Your task to perform on an android device: add a contact in the contacts app Image 0: 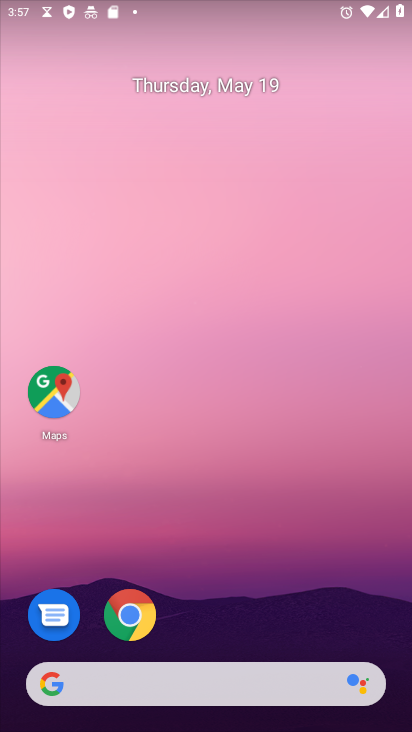
Step 0: drag from (365, 719) to (208, 45)
Your task to perform on an android device: add a contact in the contacts app Image 1: 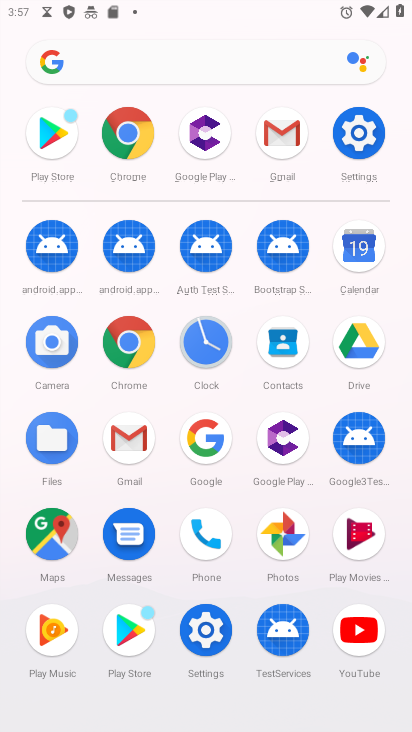
Step 1: click (293, 340)
Your task to perform on an android device: add a contact in the contacts app Image 2: 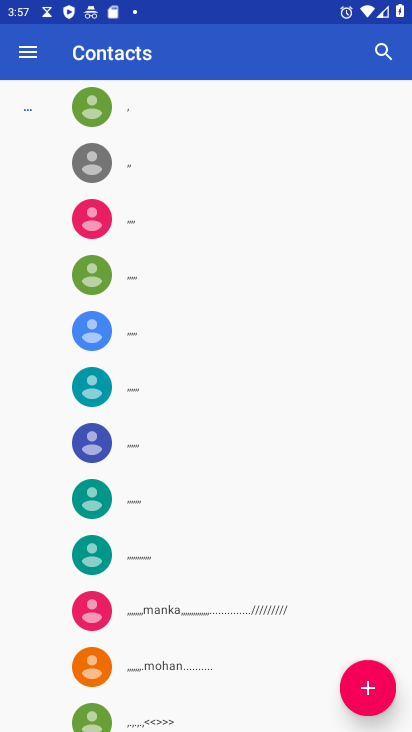
Step 2: drag from (239, 633) to (251, 183)
Your task to perform on an android device: add a contact in the contacts app Image 3: 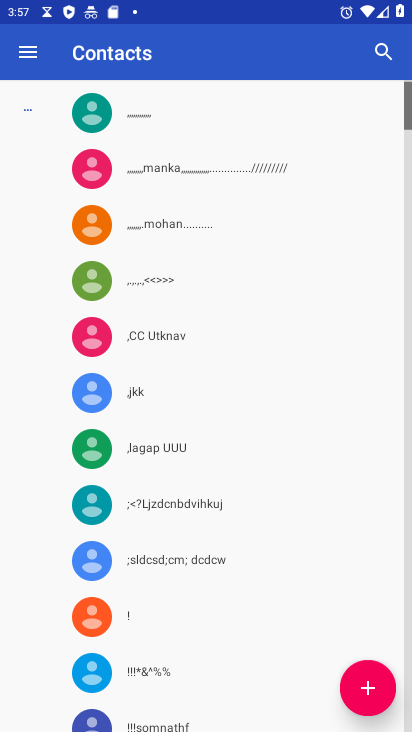
Step 3: drag from (212, 393) to (177, 73)
Your task to perform on an android device: add a contact in the contacts app Image 4: 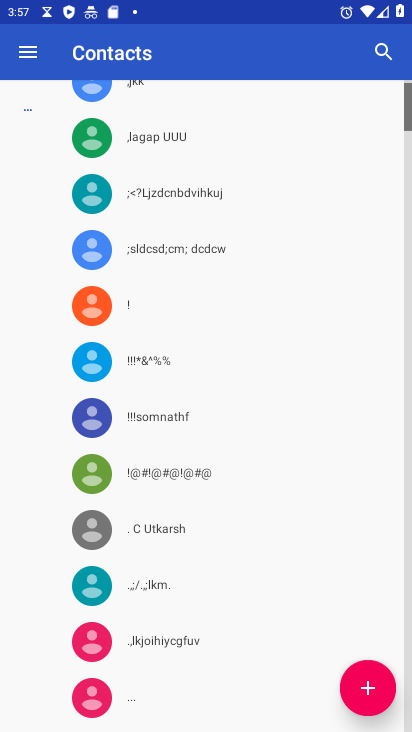
Step 4: drag from (291, 441) to (260, 127)
Your task to perform on an android device: add a contact in the contacts app Image 5: 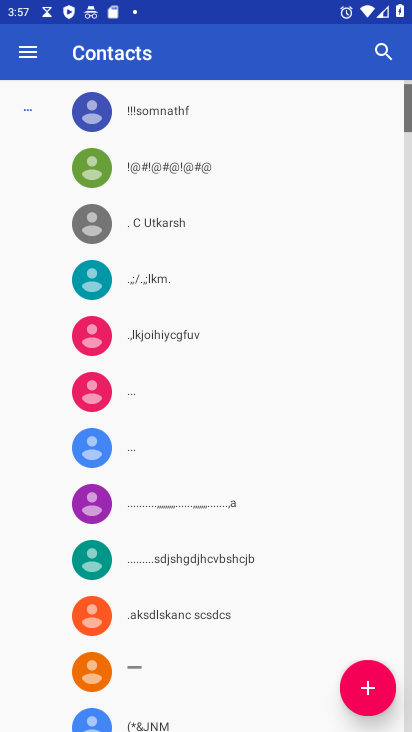
Step 5: drag from (361, 465) to (259, 125)
Your task to perform on an android device: add a contact in the contacts app Image 6: 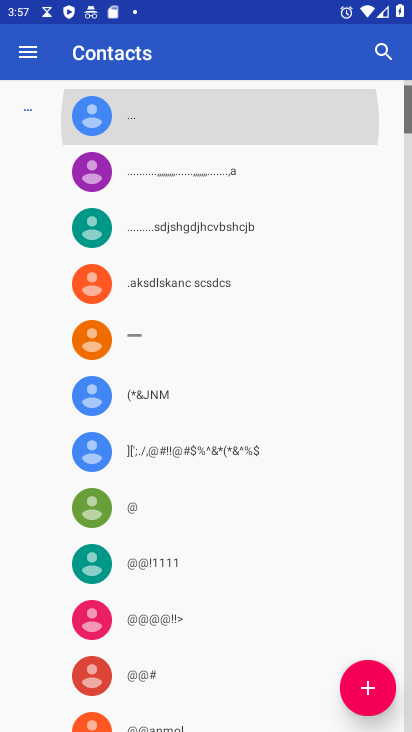
Step 6: drag from (315, 559) to (264, 133)
Your task to perform on an android device: add a contact in the contacts app Image 7: 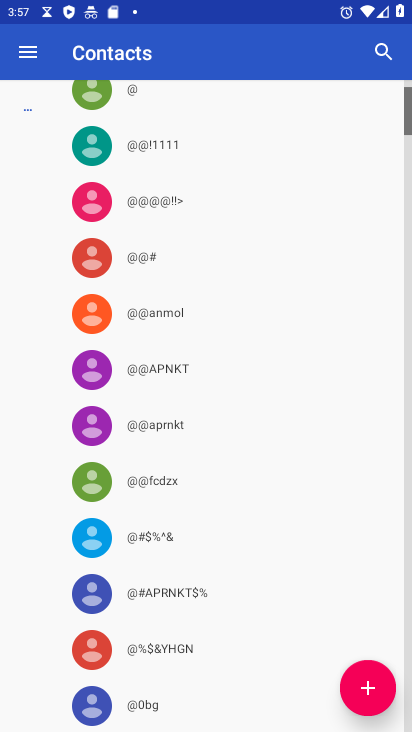
Step 7: drag from (303, 537) to (205, 190)
Your task to perform on an android device: add a contact in the contacts app Image 8: 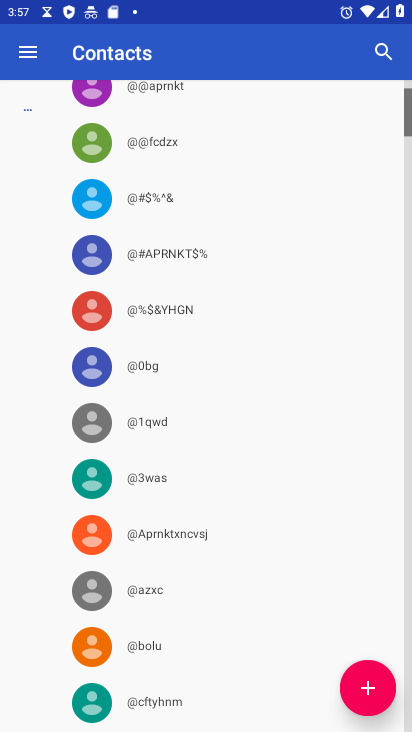
Step 8: drag from (310, 457) to (321, 175)
Your task to perform on an android device: add a contact in the contacts app Image 9: 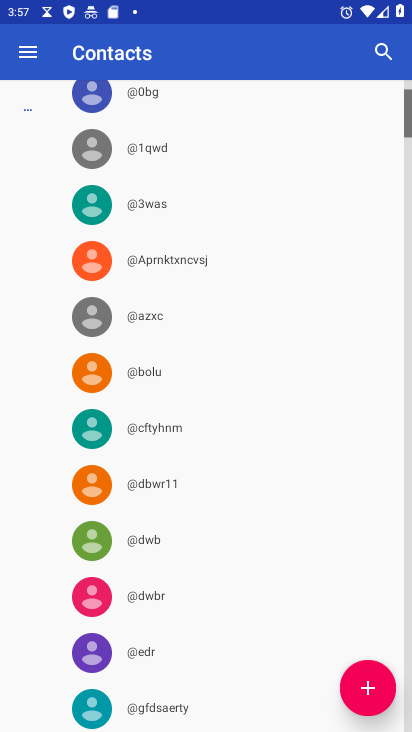
Step 9: drag from (356, 550) to (288, 220)
Your task to perform on an android device: add a contact in the contacts app Image 10: 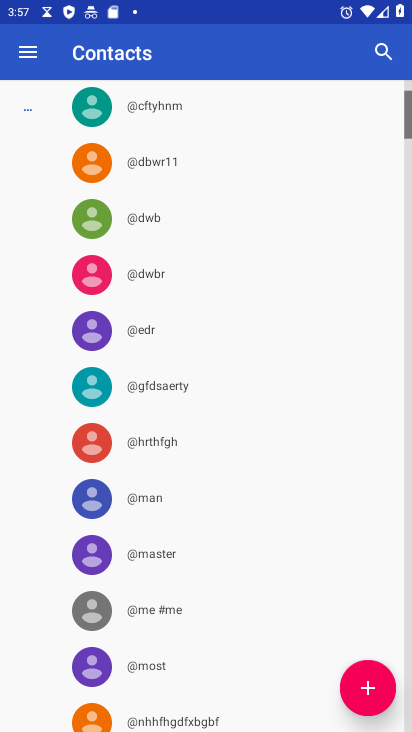
Step 10: click (360, 674)
Your task to perform on an android device: add a contact in the contacts app Image 11: 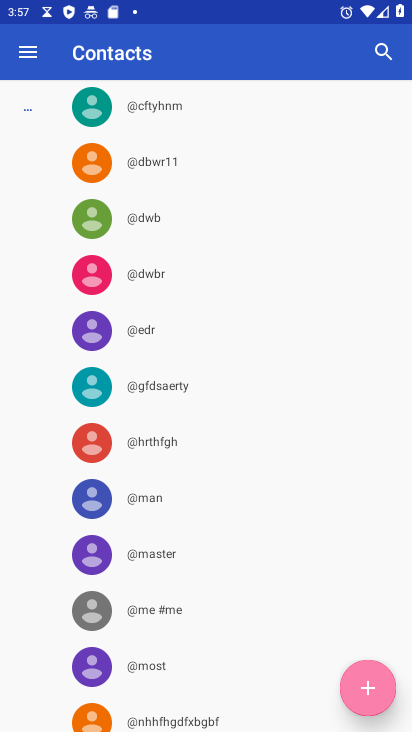
Step 11: click (371, 682)
Your task to perform on an android device: add a contact in the contacts app Image 12: 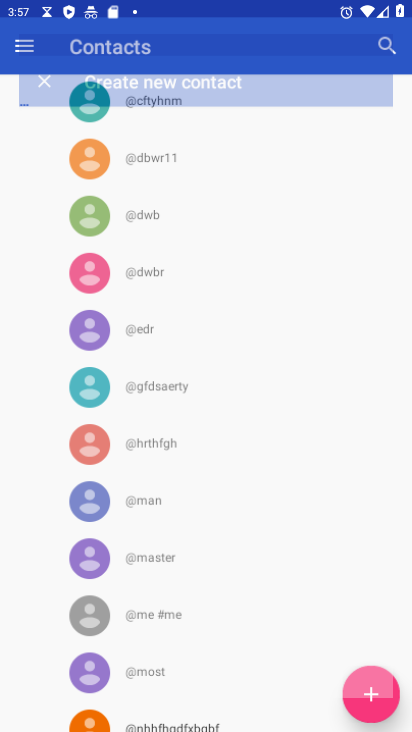
Step 12: click (371, 682)
Your task to perform on an android device: add a contact in the contacts app Image 13: 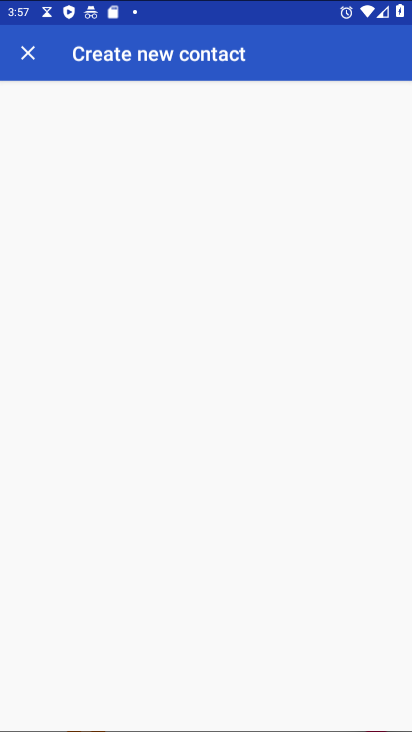
Step 13: click (371, 682)
Your task to perform on an android device: add a contact in the contacts app Image 14: 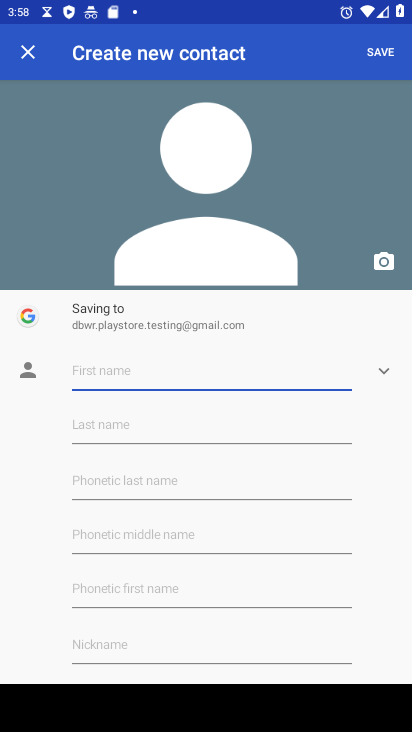
Step 14: type "fdhfgjhgjhghu"
Your task to perform on an android device: add a contact in the contacts app Image 15: 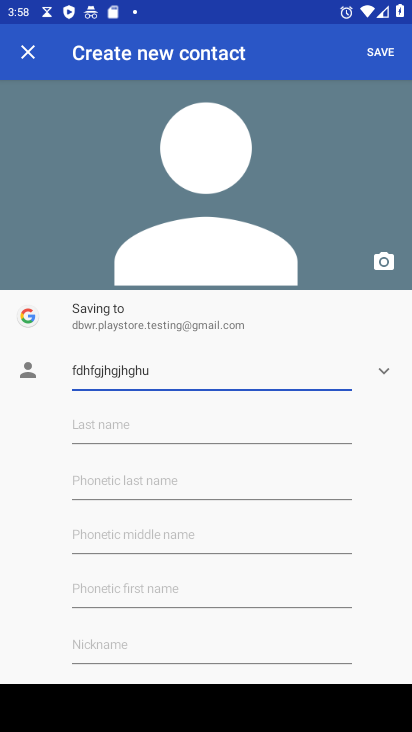
Step 15: click (91, 480)
Your task to perform on an android device: add a contact in the contacts app Image 16: 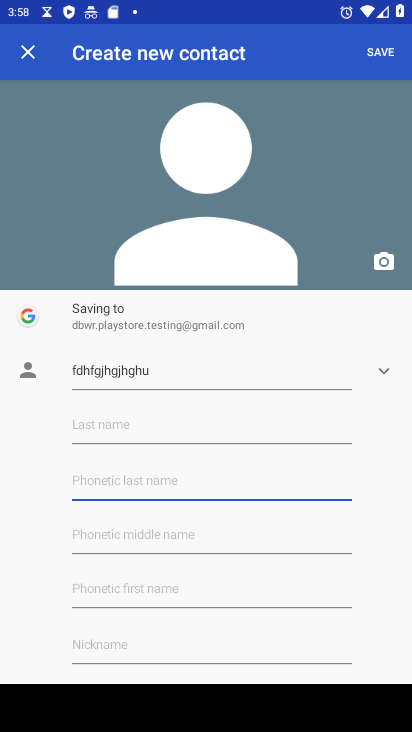
Step 16: click (91, 480)
Your task to perform on an android device: add a contact in the contacts app Image 17: 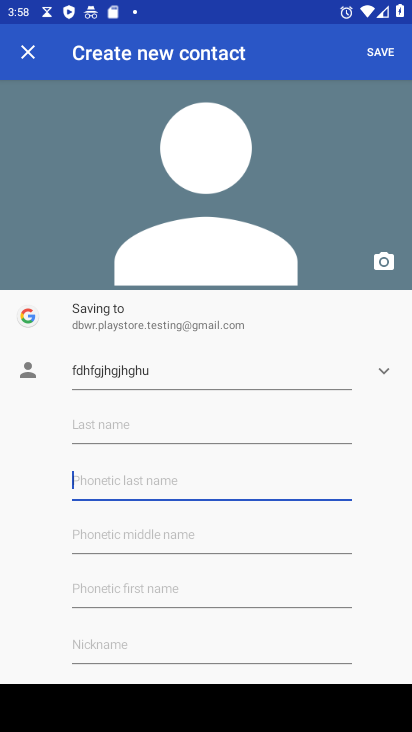
Step 17: type "6576786879"
Your task to perform on an android device: add a contact in the contacts app Image 18: 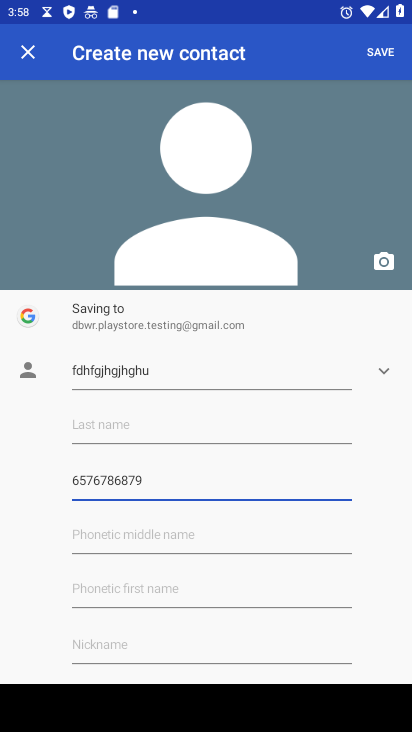
Step 18: click (397, 46)
Your task to perform on an android device: add a contact in the contacts app Image 19: 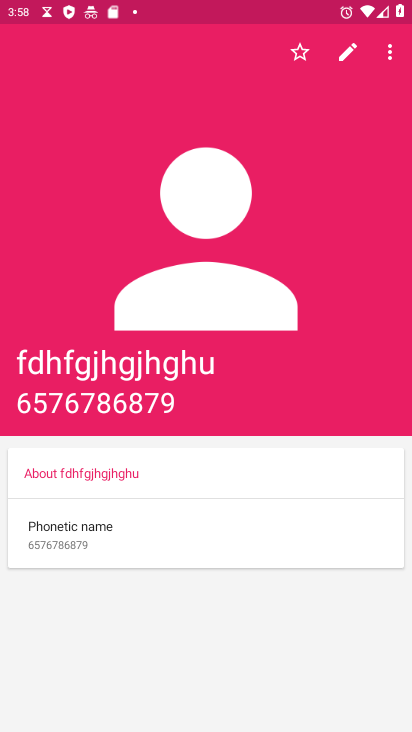
Step 19: task complete